Your task to perform on an android device: open app "DuckDuckGo Privacy Browser" Image 0: 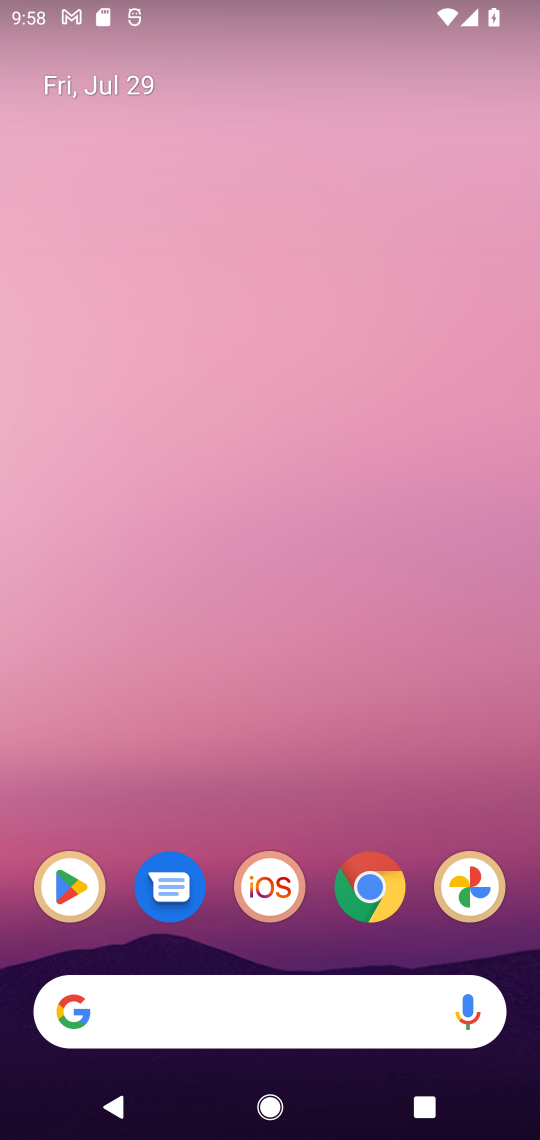
Step 0: click (73, 886)
Your task to perform on an android device: open app "DuckDuckGo Privacy Browser" Image 1: 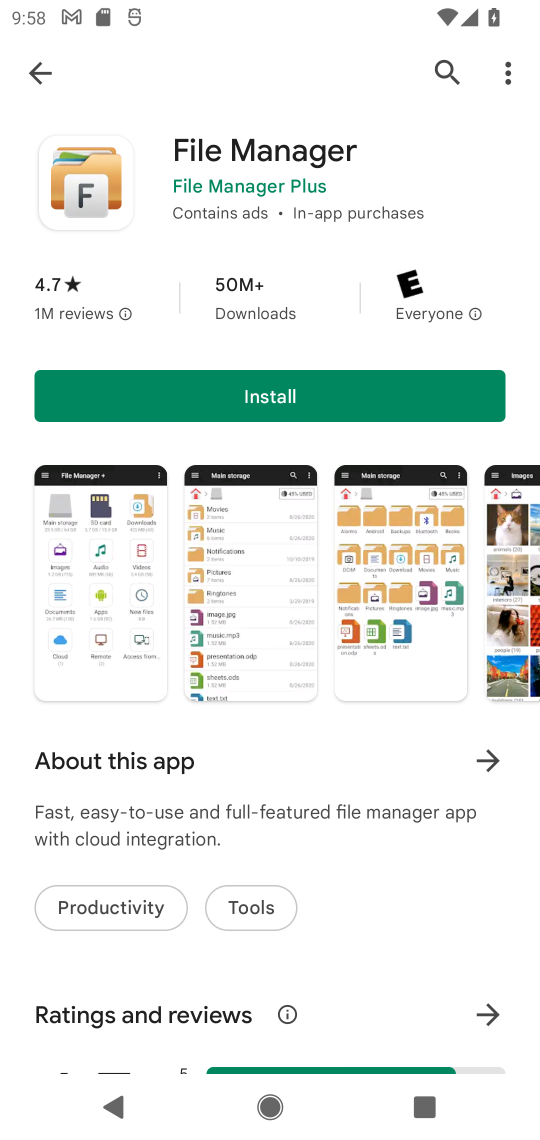
Step 1: click (446, 58)
Your task to perform on an android device: open app "DuckDuckGo Privacy Browser" Image 2: 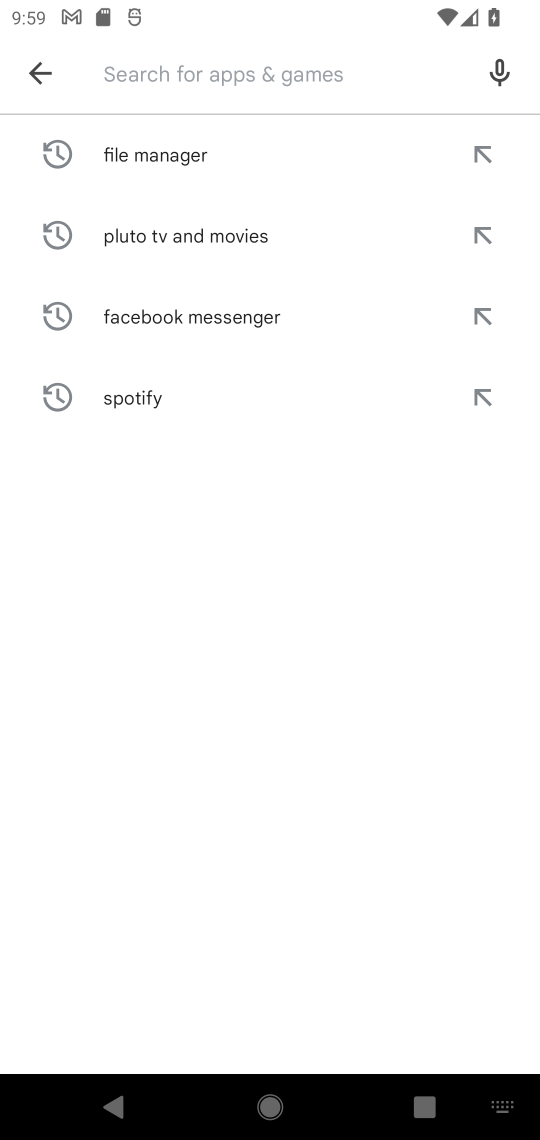
Step 2: type "DuckDuckGo Privacy Browser"
Your task to perform on an android device: open app "DuckDuckGo Privacy Browser" Image 3: 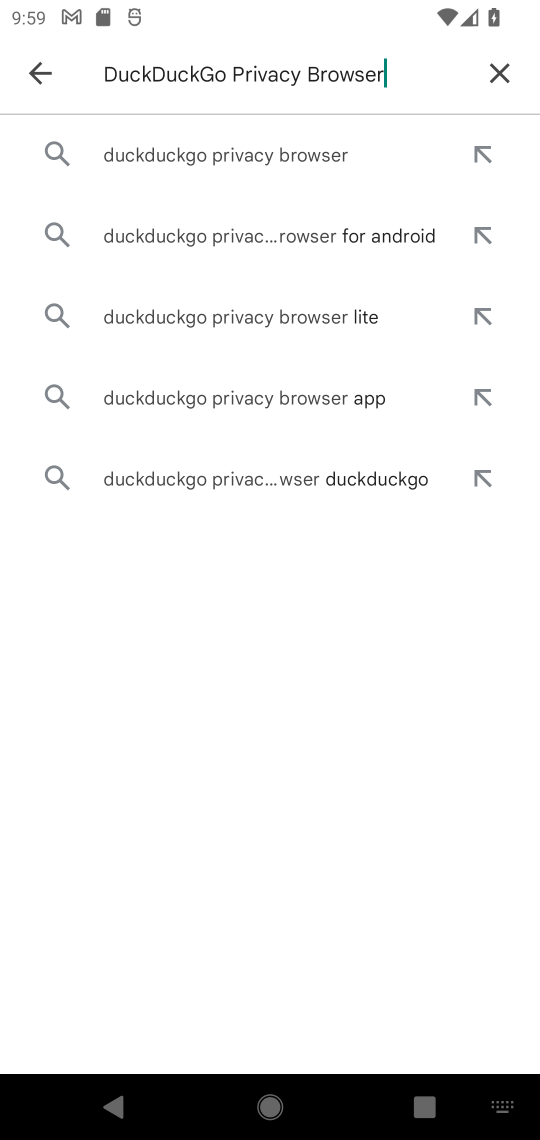
Step 3: click (433, 163)
Your task to perform on an android device: open app "DuckDuckGo Privacy Browser" Image 4: 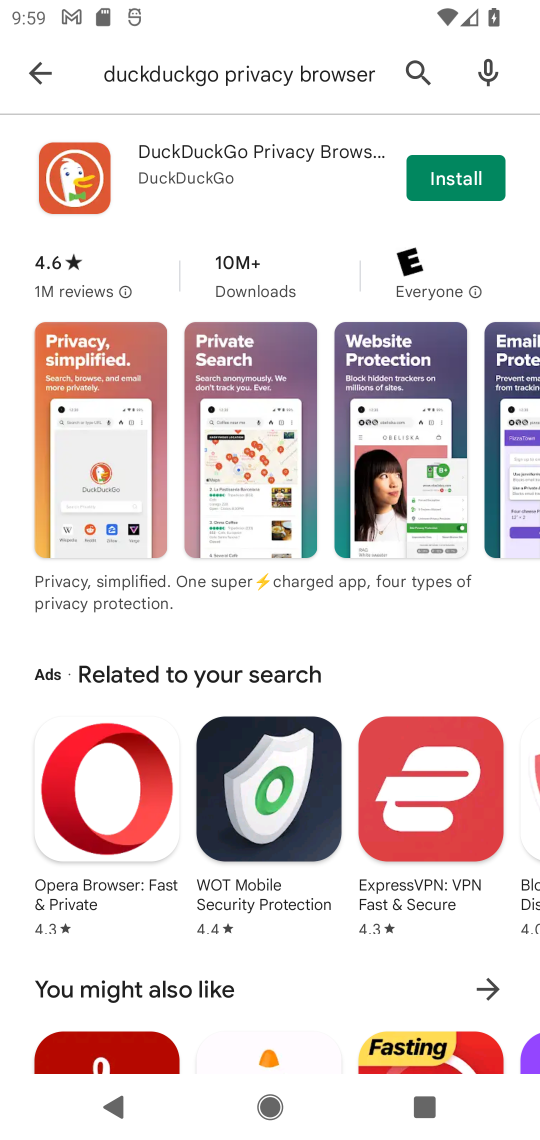
Step 4: click (249, 139)
Your task to perform on an android device: open app "DuckDuckGo Privacy Browser" Image 5: 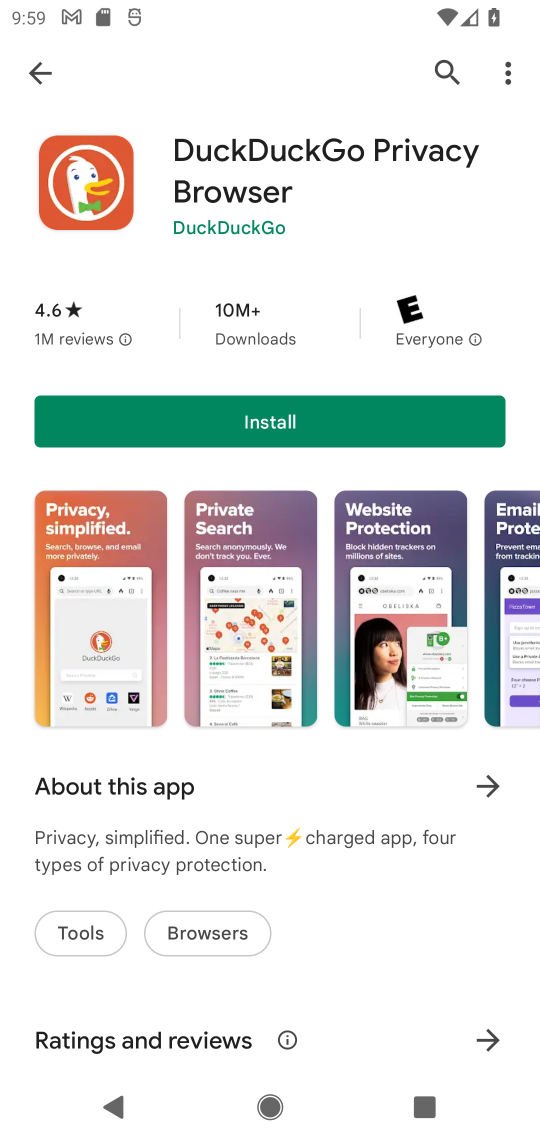
Step 5: task complete